Your task to perform on an android device: Do I have any events today? Image 0: 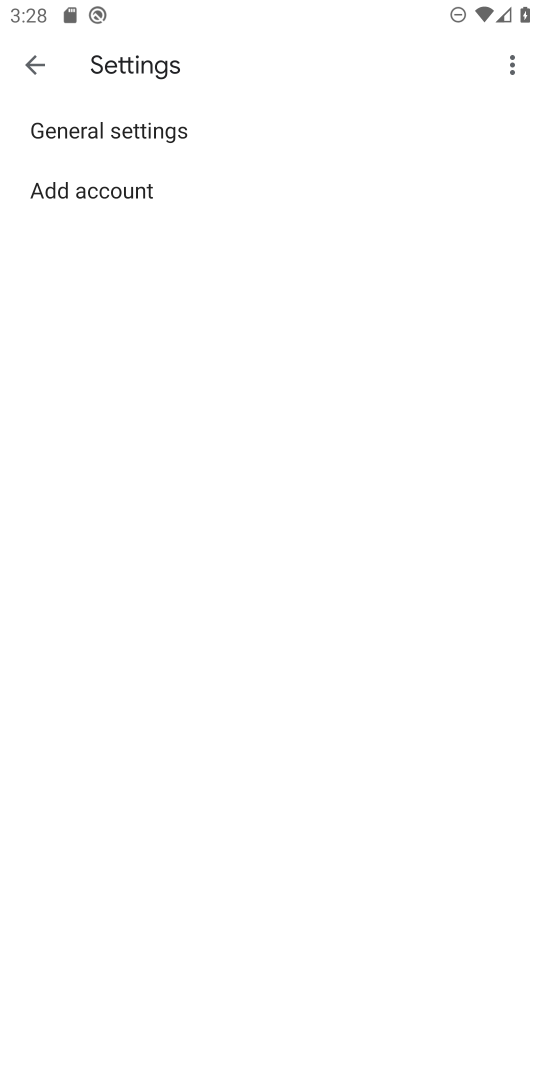
Step 0: press home button
Your task to perform on an android device: Do I have any events today? Image 1: 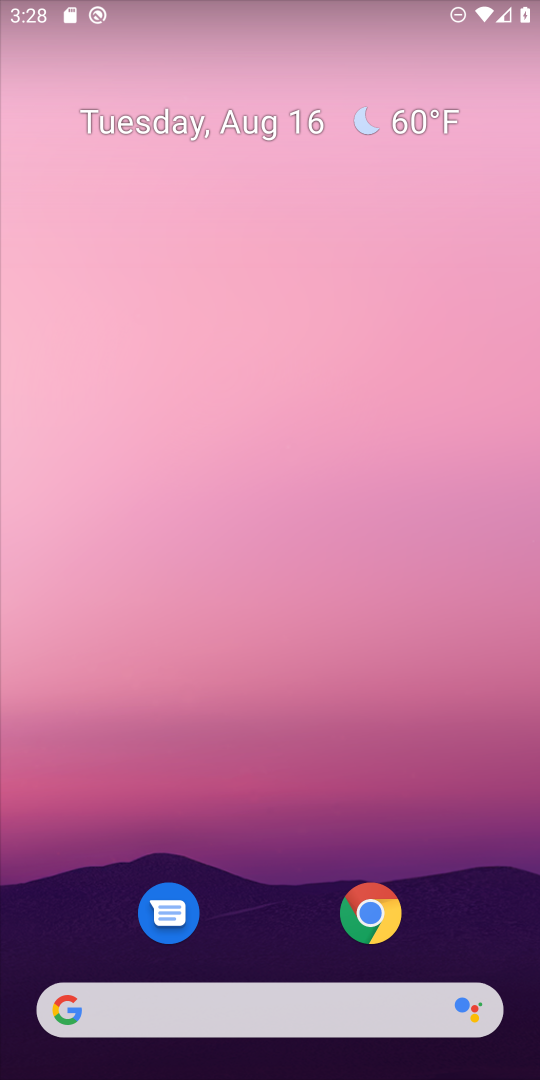
Step 1: drag from (496, 915) to (475, 234)
Your task to perform on an android device: Do I have any events today? Image 2: 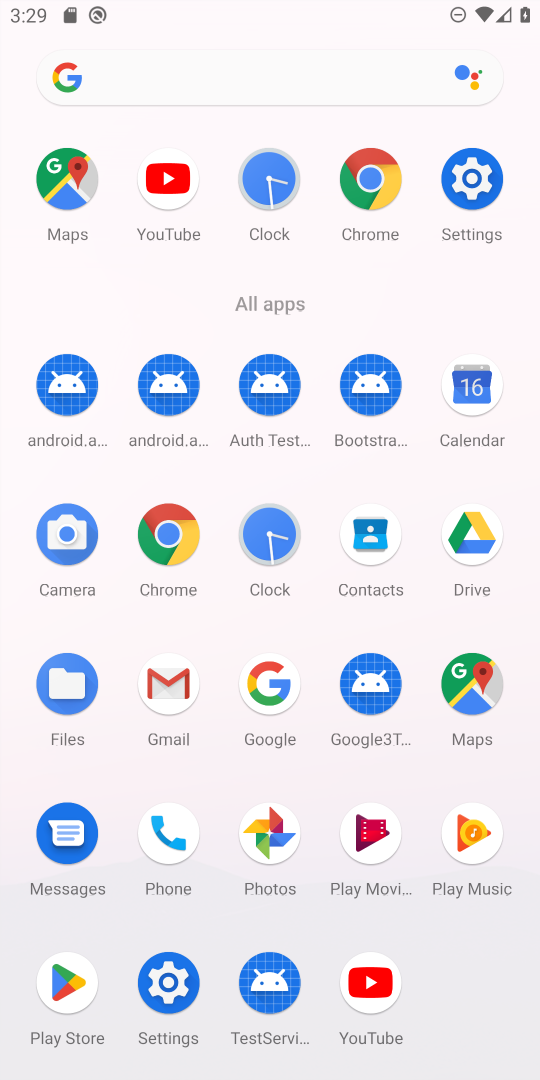
Step 2: click (474, 382)
Your task to perform on an android device: Do I have any events today? Image 3: 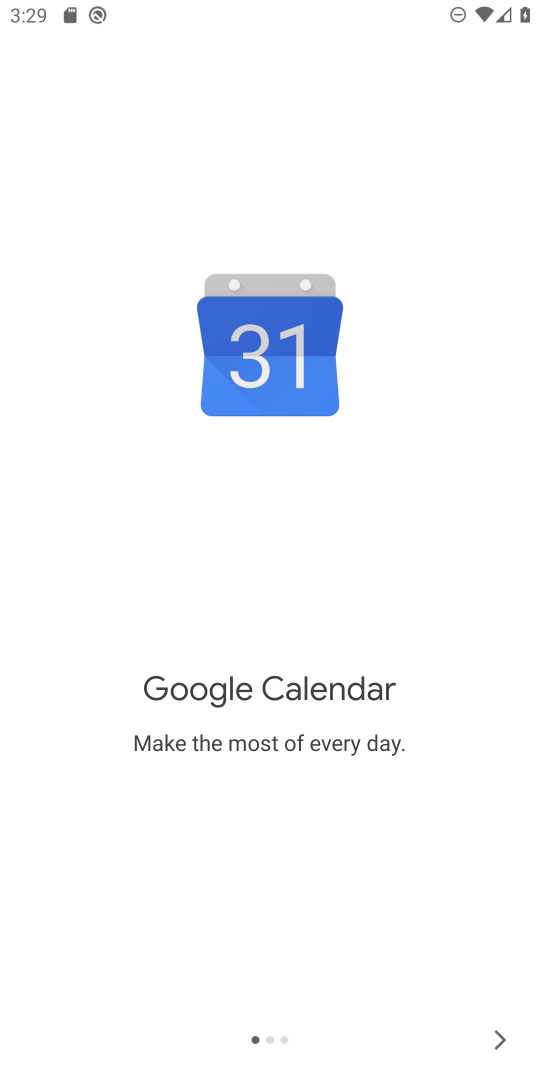
Step 3: click (496, 1037)
Your task to perform on an android device: Do I have any events today? Image 4: 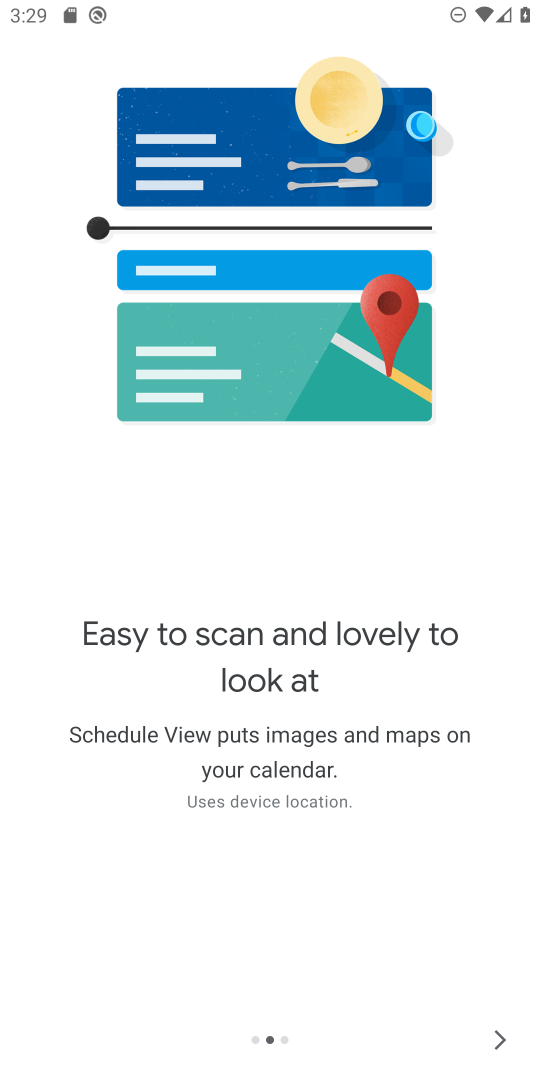
Step 4: click (496, 1037)
Your task to perform on an android device: Do I have any events today? Image 5: 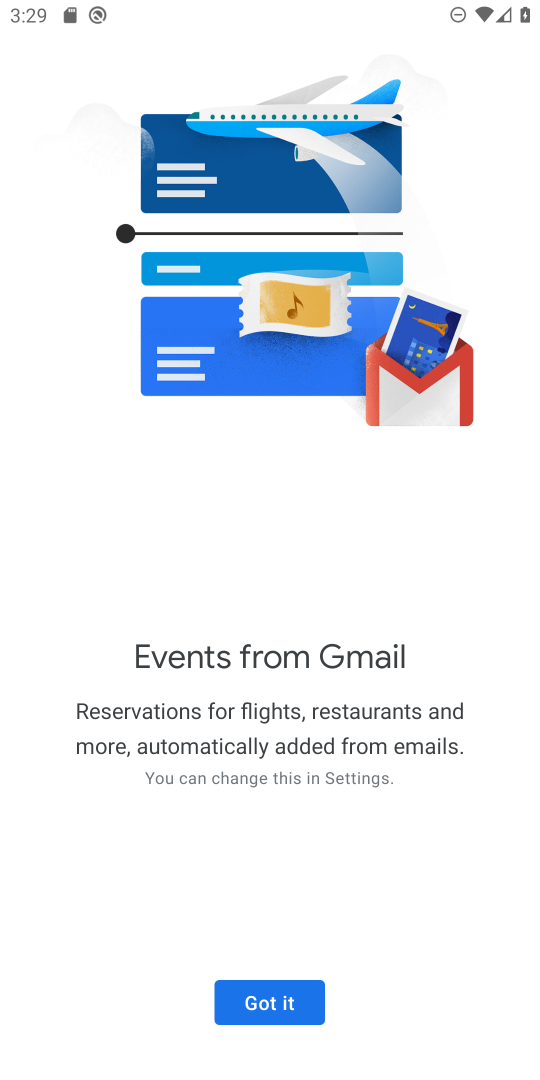
Step 5: click (262, 994)
Your task to perform on an android device: Do I have any events today? Image 6: 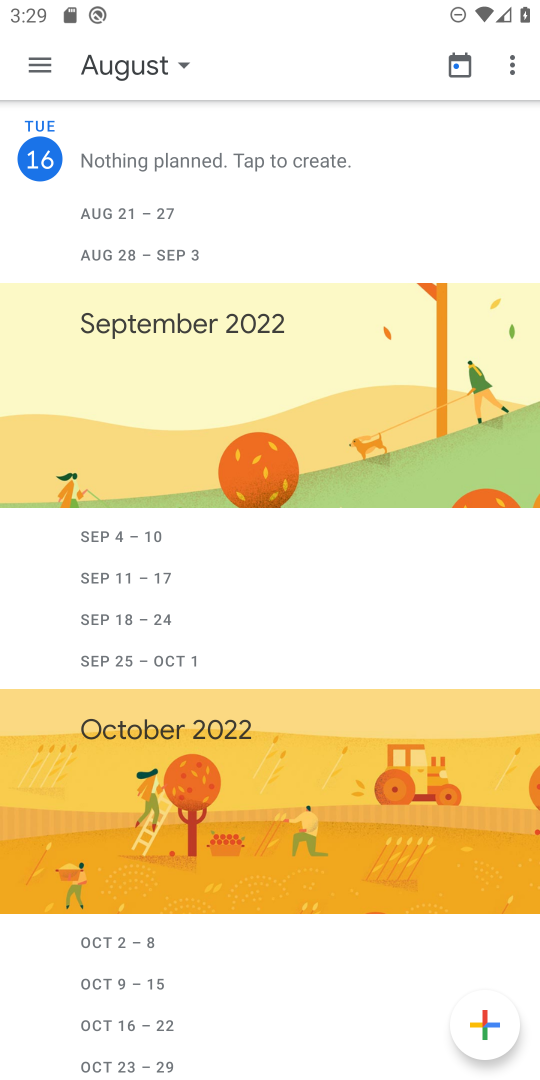
Step 6: click (44, 67)
Your task to perform on an android device: Do I have any events today? Image 7: 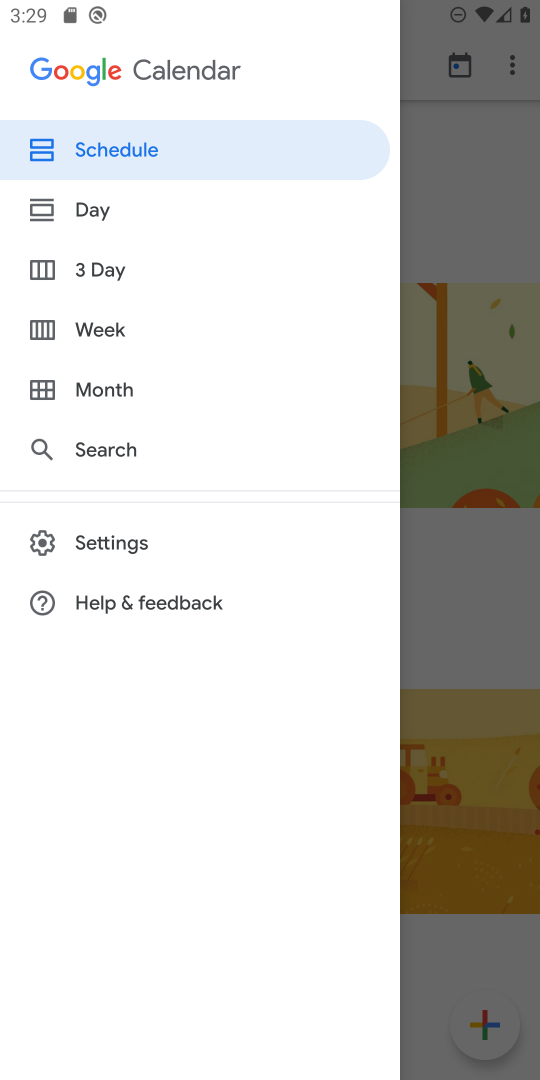
Step 7: click (94, 210)
Your task to perform on an android device: Do I have any events today? Image 8: 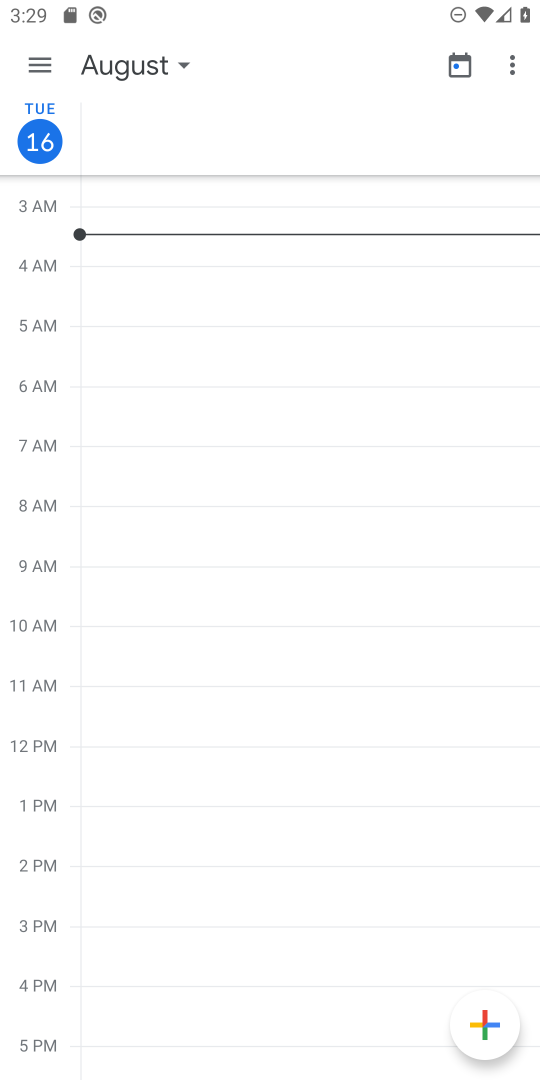
Step 8: task complete